Your task to perform on an android device: Go to Google maps Image 0: 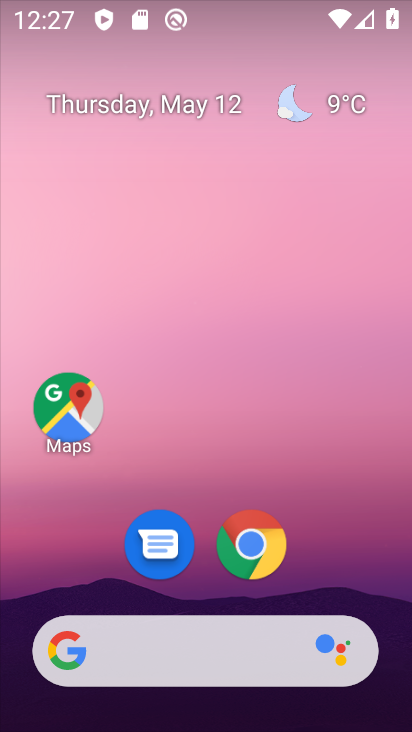
Step 0: drag from (214, 721) to (239, 148)
Your task to perform on an android device: Go to Google maps Image 1: 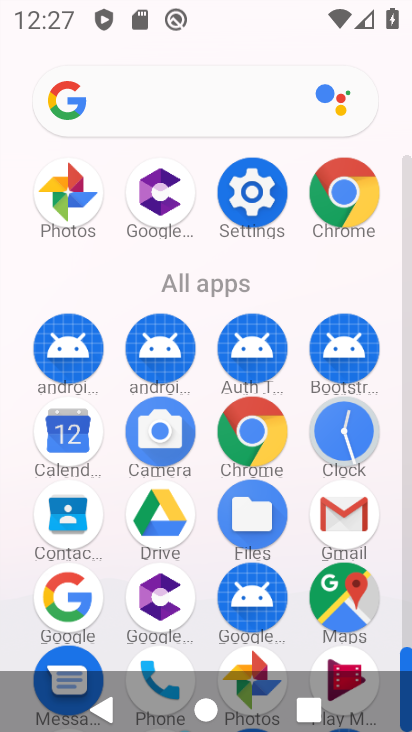
Step 1: click (341, 597)
Your task to perform on an android device: Go to Google maps Image 2: 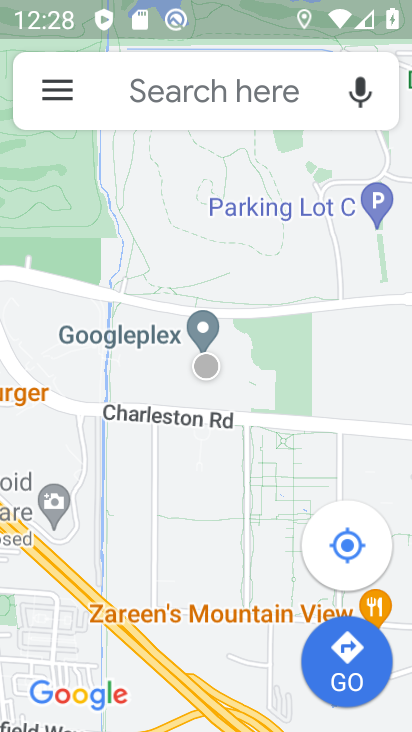
Step 2: task complete